Your task to perform on an android device: Search for the best selling book on Amazon. Image 0: 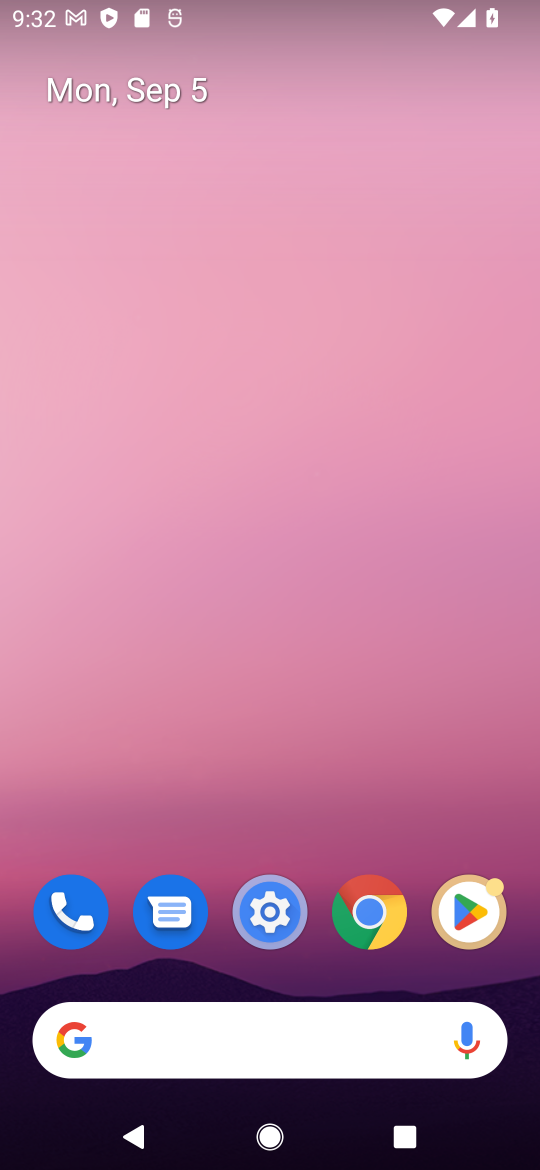
Step 0: click (374, 929)
Your task to perform on an android device: Search for the best selling book on Amazon. Image 1: 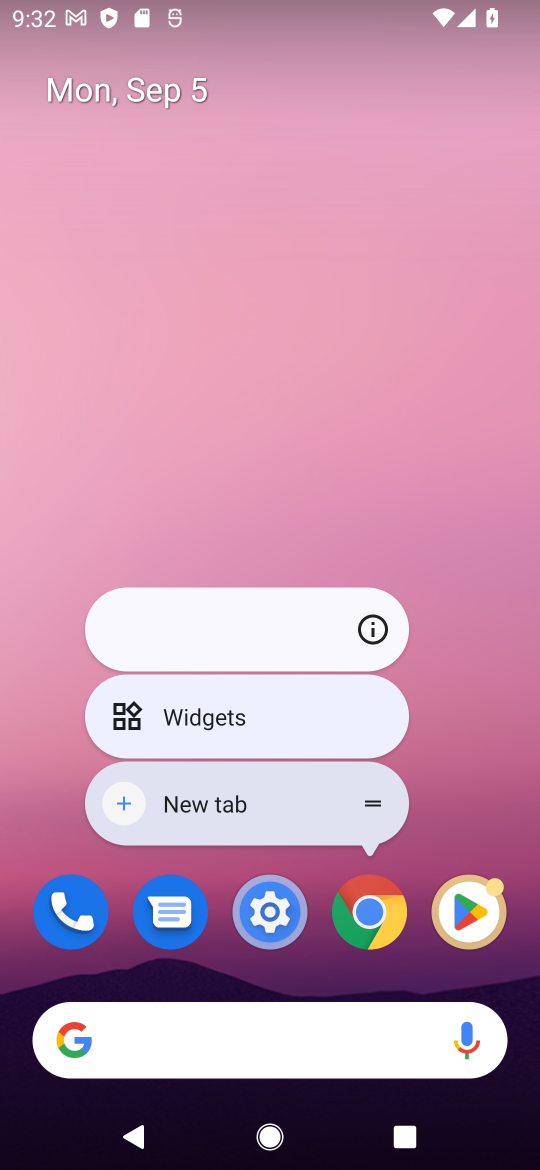
Step 1: click (374, 929)
Your task to perform on an android device: Search for the best selling book on Amazon. Image 2: 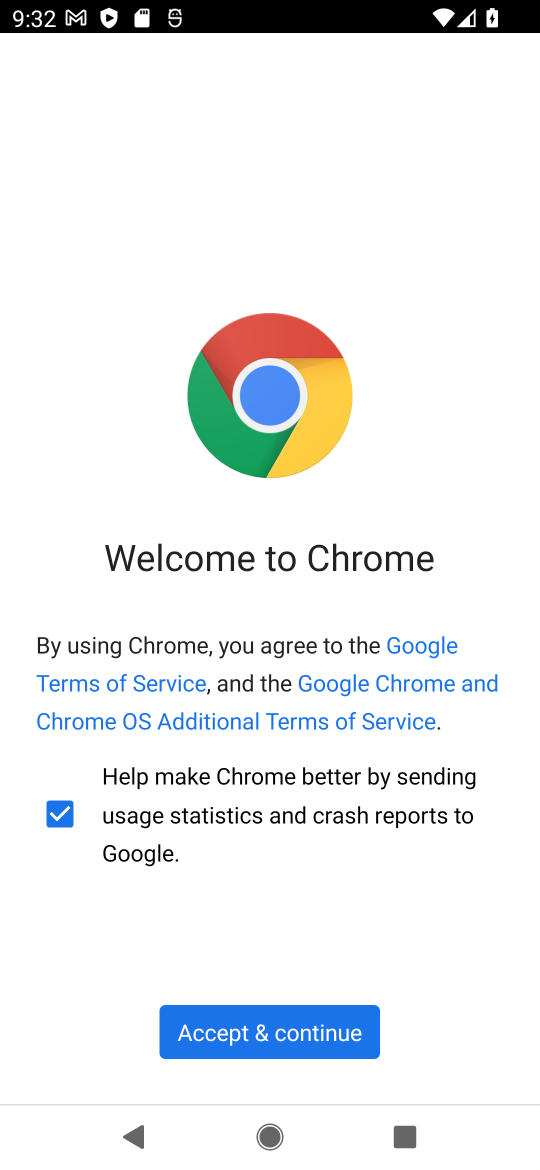
Step 2: click (272, 1038)
Your task to perform on an android device: Search for the best selling book on Amazon. Image 3: 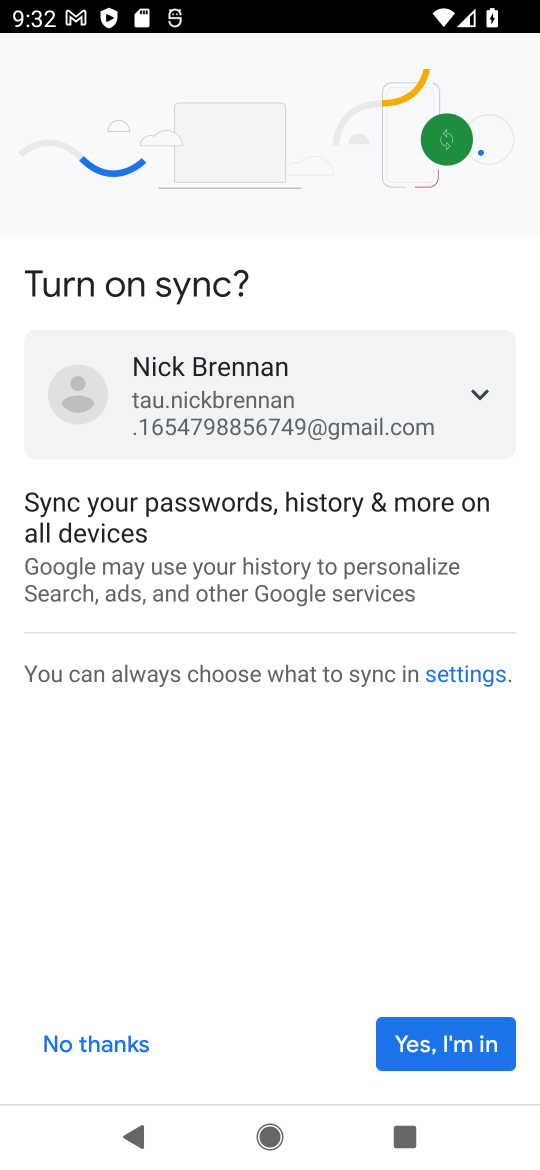
Step 3: click (122, 1057)
Your task to perform on an android device: Search for the best selling book on Amazon. Image 4: 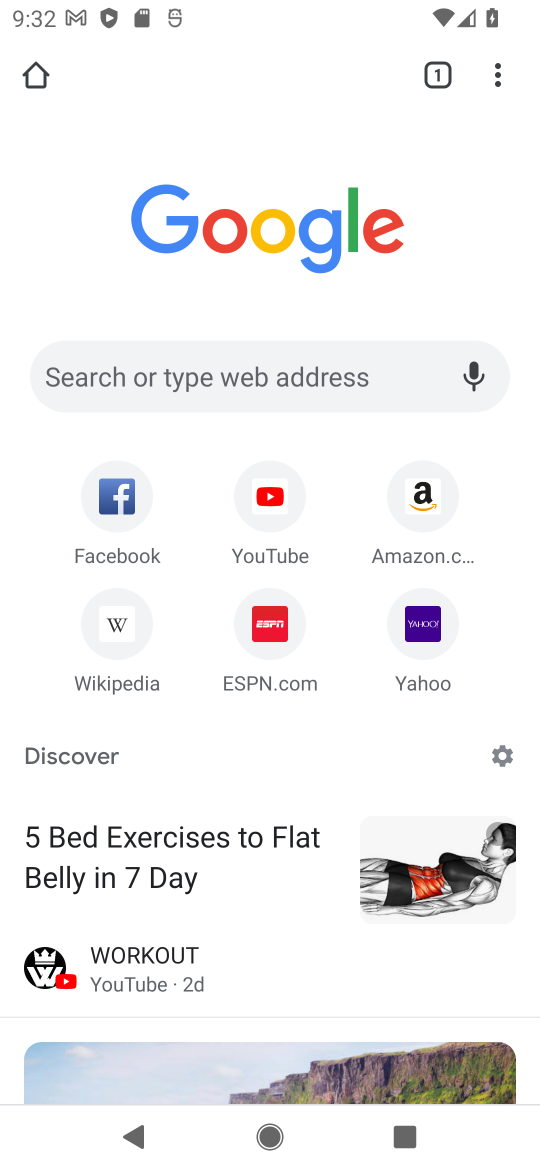
Step 4: click (419, 503)
Your task to perform on an android device: Search for the best selling book on Amazon. Image 5: 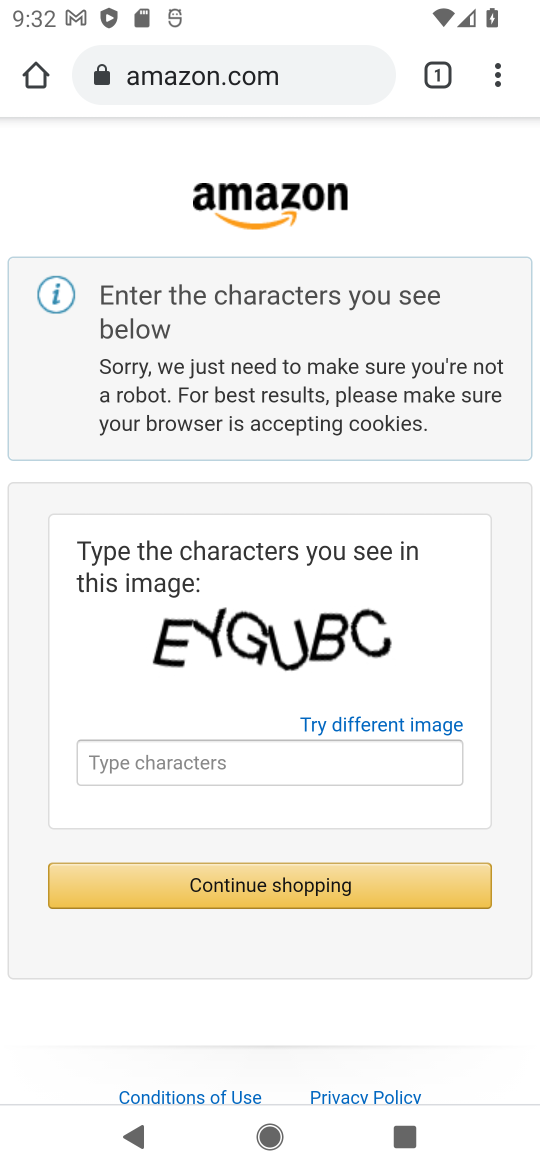
Step 5: drag from (413, 711) to (396, 421)
Your task to perform on an android device: Search for the best selling book on Amazon. Image 6: 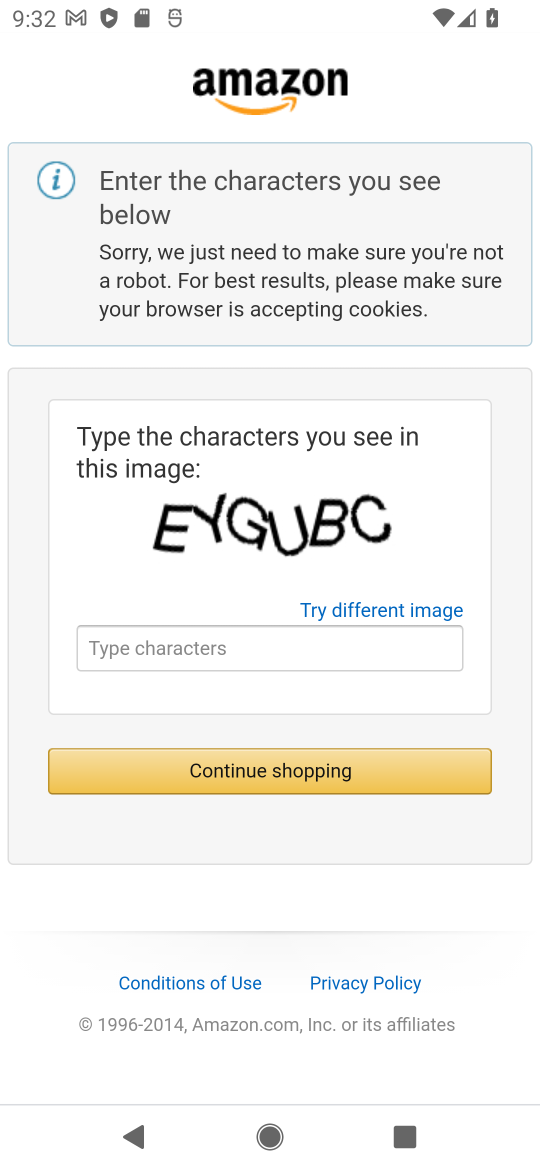
Step 6: click (244, 776)
Your task to perform on an android device: Search for the best selling book on Amazon. Image 7: 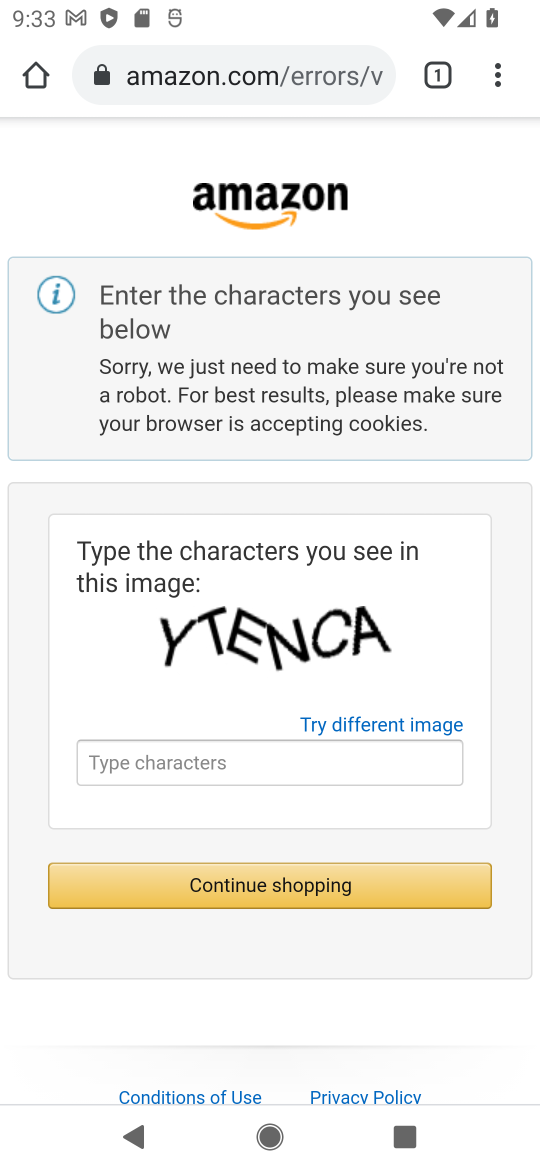
Step 7: click (244, 76)
Your task to perform on an android device: Search for the best selling book on Amazon. Image 8: 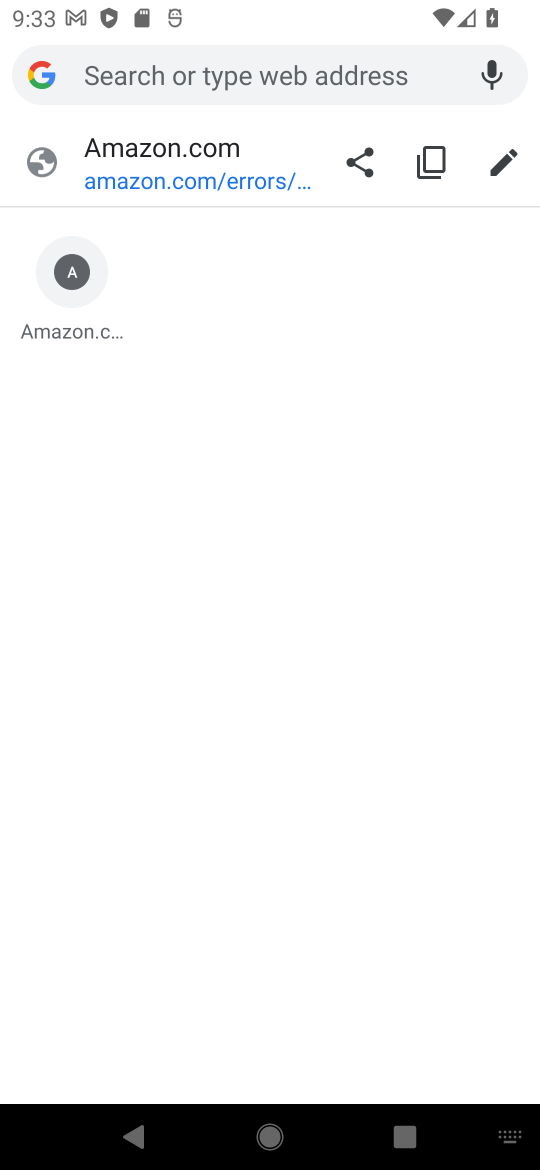
Step 8: type "amazon"
Your task to perform on an android device: Search for the best selling book on Amazon. Image 9: 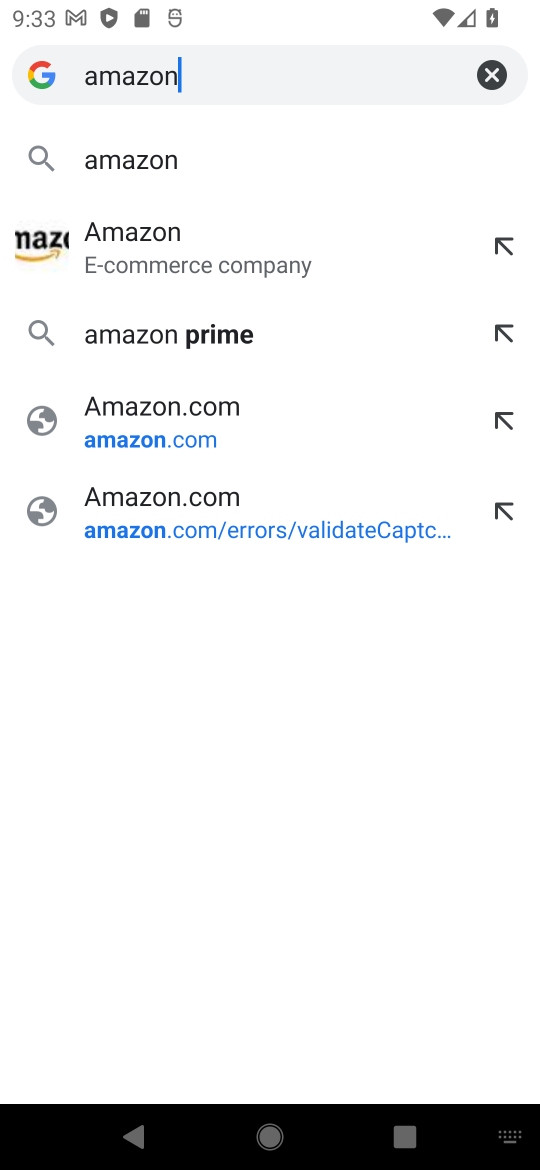
Step 9: click (149, 414)
Your task to perform on an android device: Search for the best selling book on Amazon. Image 10: 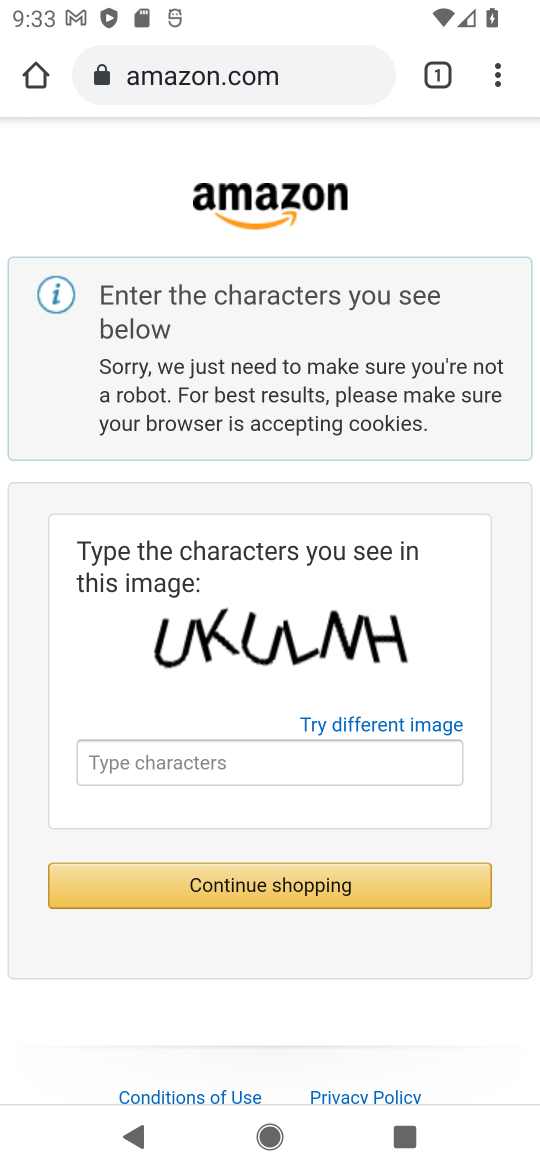
Step 10: click (215, 751)
Your task to perform on an android device: Search for the best selling book on Amazon. Image 11: 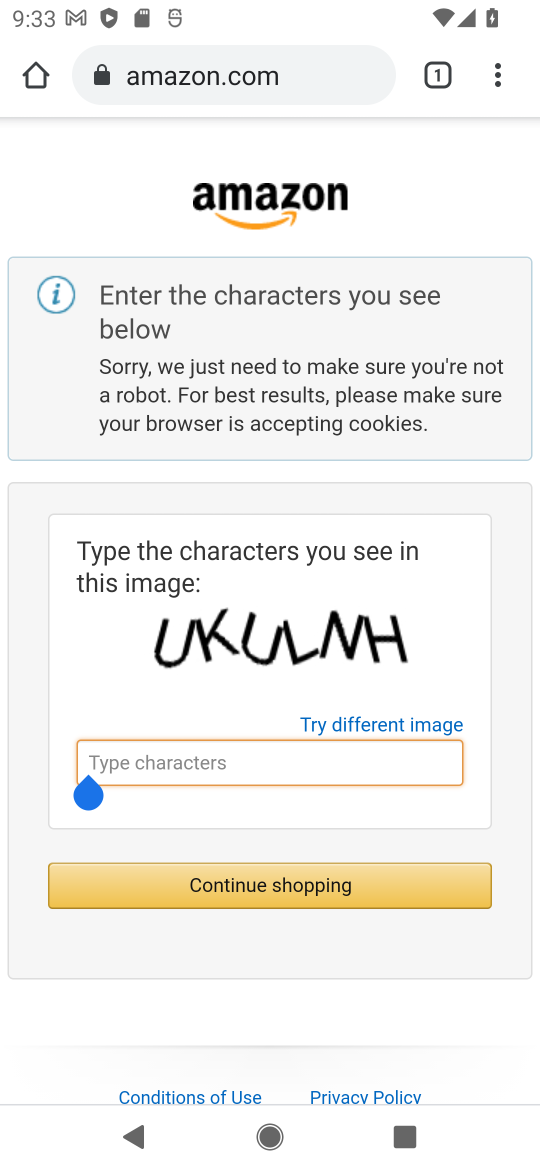
Step 11: type "UKULNH"
Your task to perform on an android device: Search for the best selling book on Amazon. Image 12: 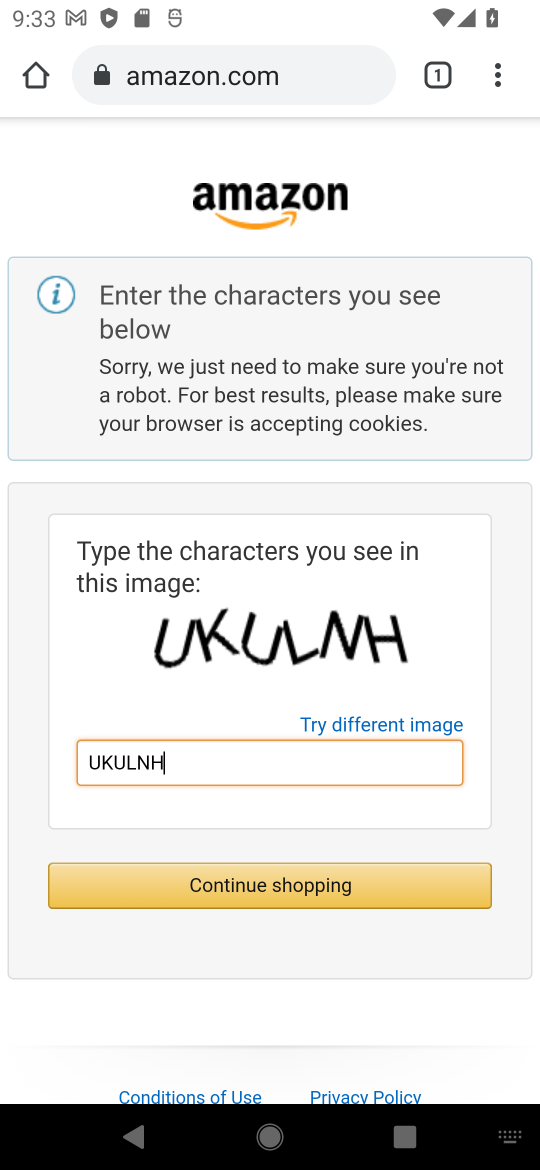
Step 12: click (265, 892)
Your task to perform on an android device: Search for the best selling book on Amazon. Image 13: 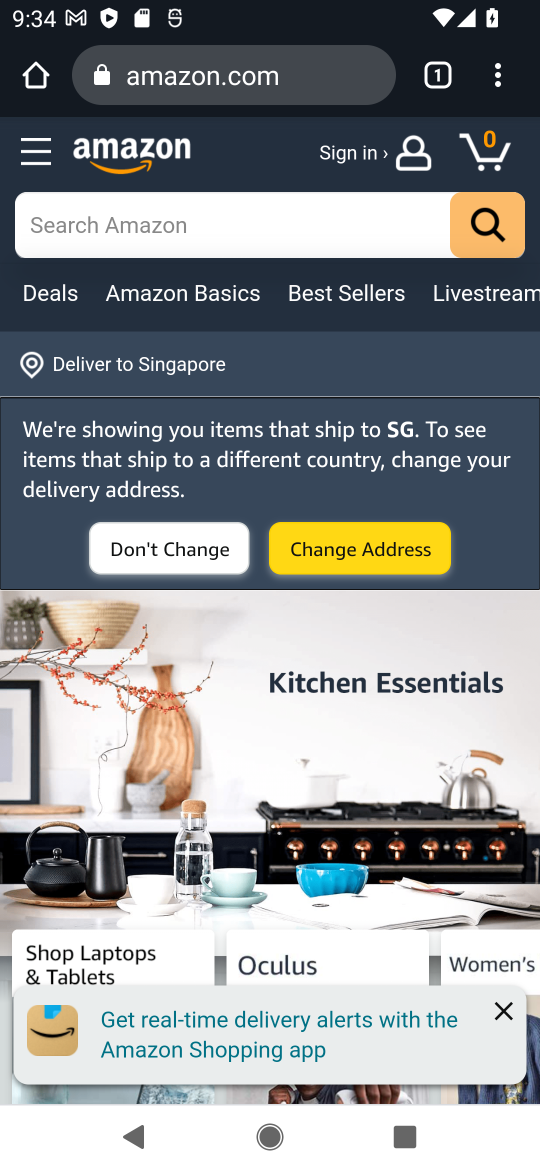
Step 13: click (213, 224)
Your task to perform on an android device: Search for the best selling book on Amazon. Image 14: 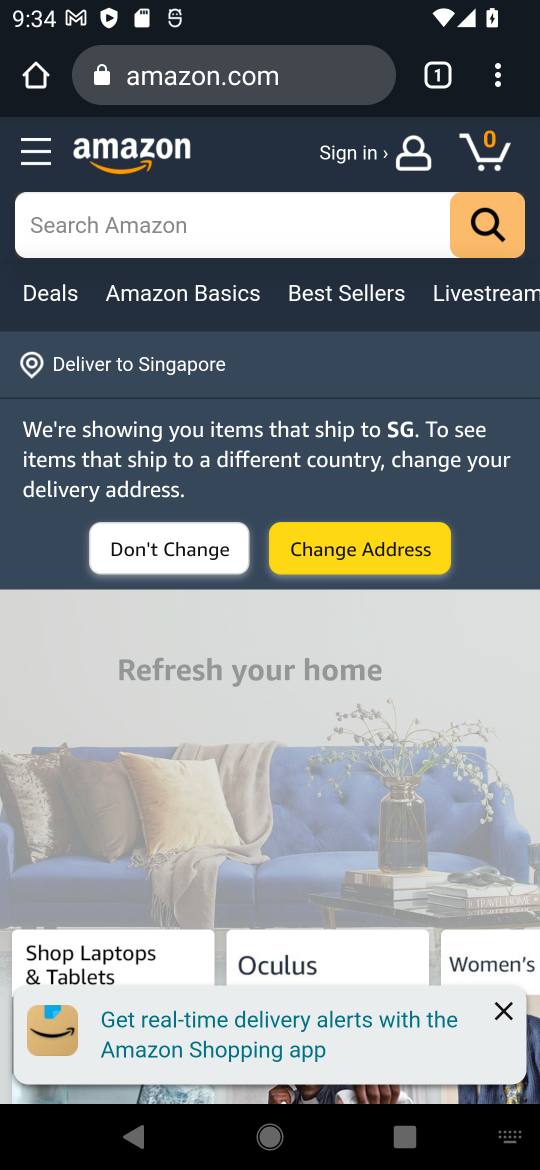
Step 14: type "best selling book"
Your task to perform on an android device: Search for the best selling book on Amazon. Image 15: 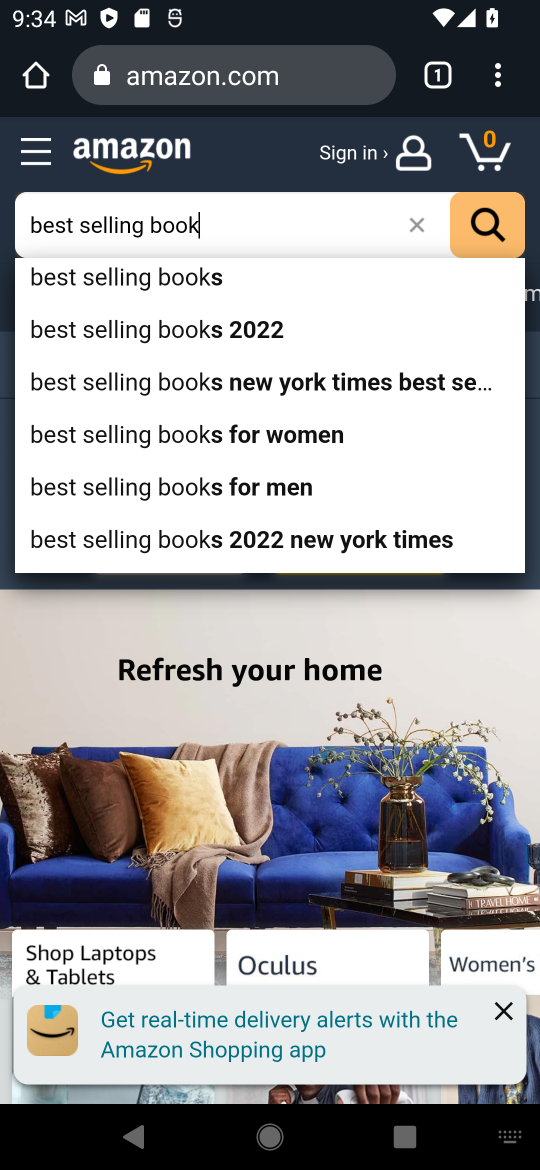
Step 15: click (203, 283)
Your task to perform on an android device: Search for the best selling book on Amazon. Image 16: 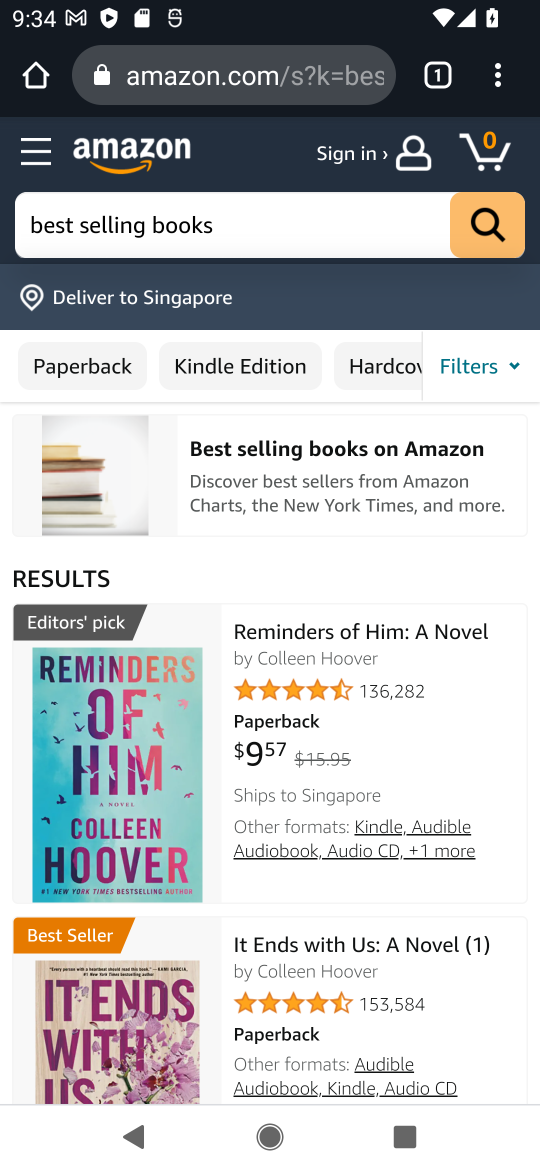
Step 16: task complete